Your task to perform on an android device: turn off picture-in-picture Image 0: 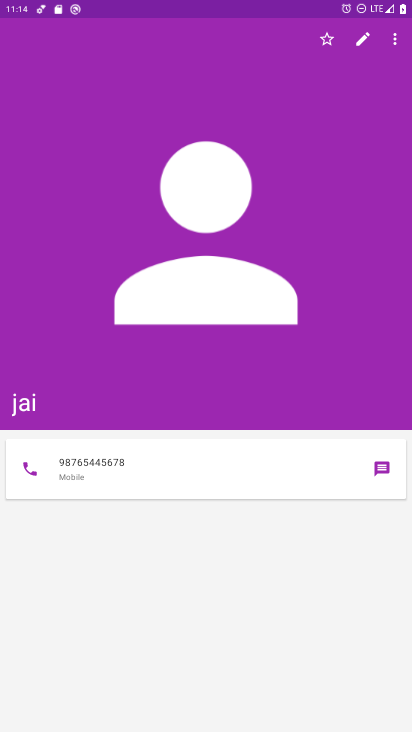
Step 0: press home button
Your task to perform on an android device: turn off picture-in-picture Image 1: 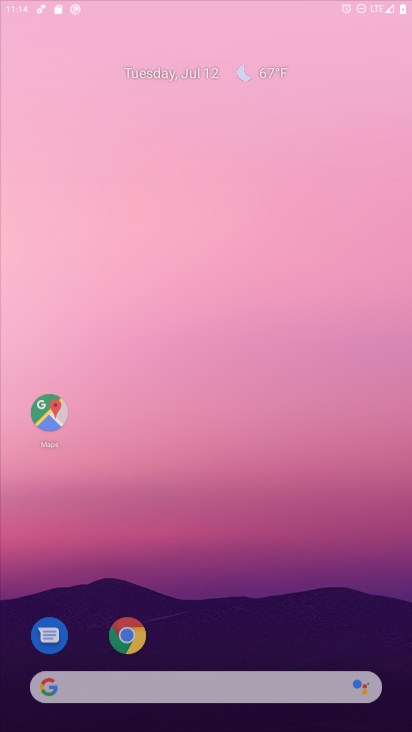
Step 1: drag from (226, 520) to (290, 91)
Your task to perform on an android device: turn off picture-in-picture Image 2: 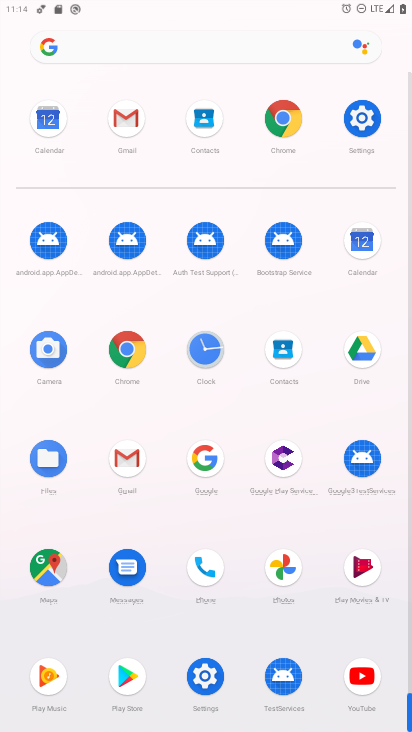
Step 2: click (356, 113)
Your task to perform on an android device: turn off picture-in-picture Image 3: 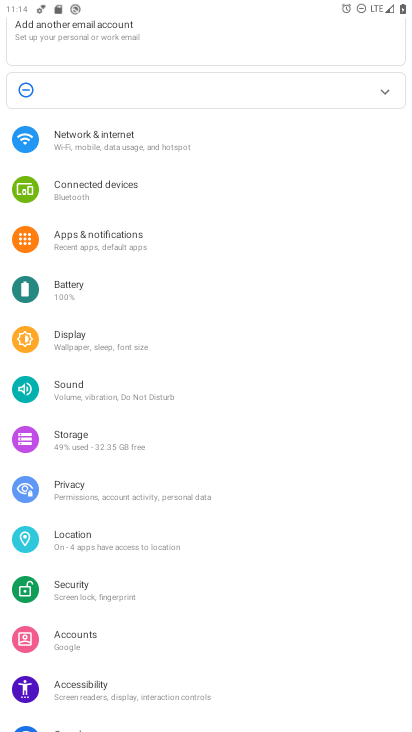
Step 3: drag from (150, 624) to (290, 97)
Your task to perform on an android device: turn off picture-in-picture Image 4: 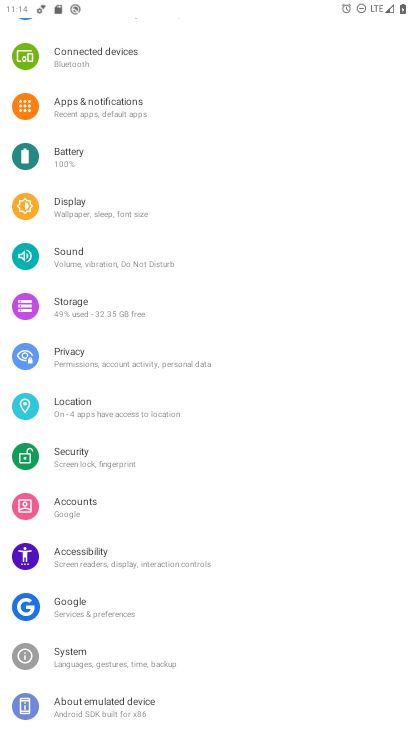
Step 4: click (102, 107)
Your task to perform on an android device: turn off picture-in-picture Image 5: 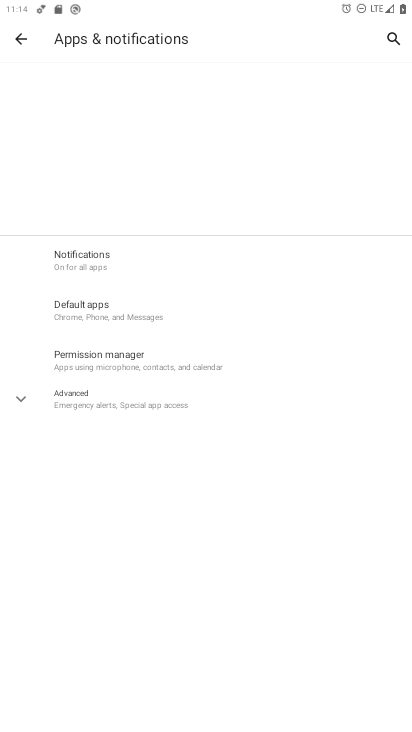
Step 5: drag from (269, 420) to (249, 144)
Your task to perform on an android device: turn off picture-in-picture Image 6: 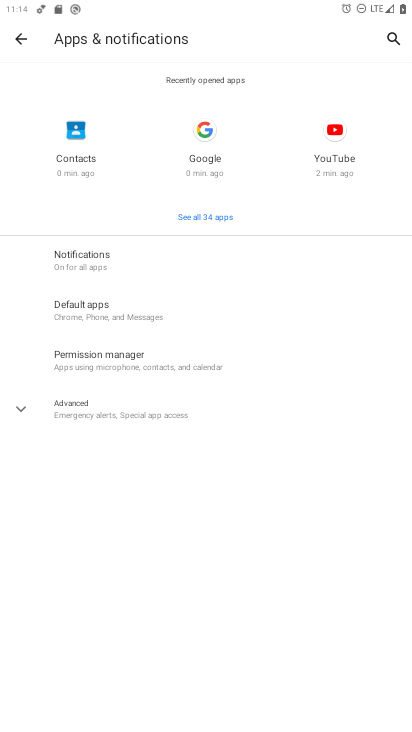
Step 6: click (89, 409)
Your task to perform on an android device: turn off picture-in-picture Image 7: 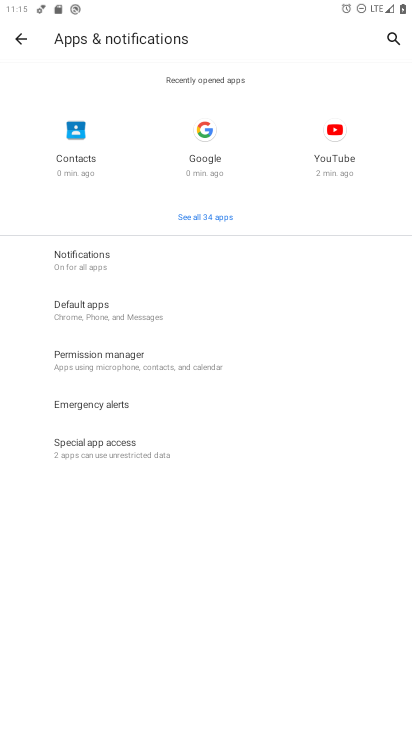
Step 7: click (146, 453)
Your task to perform on an android device: turn off picture-in-picture Image 8: 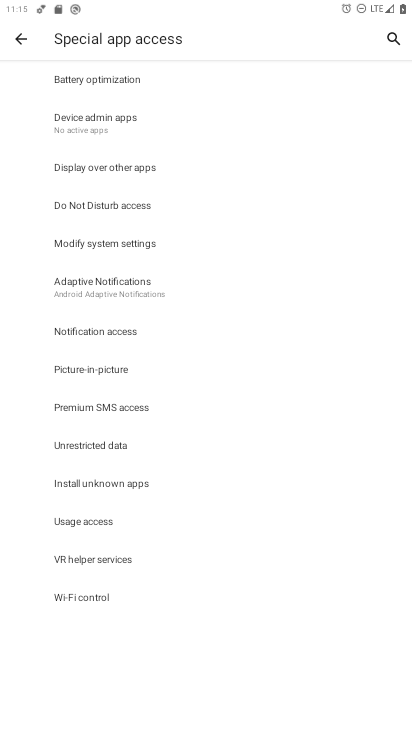
Step 8: click (114, 369)
Your task to perform on an android device: turn off picture-in-picture Image 9: 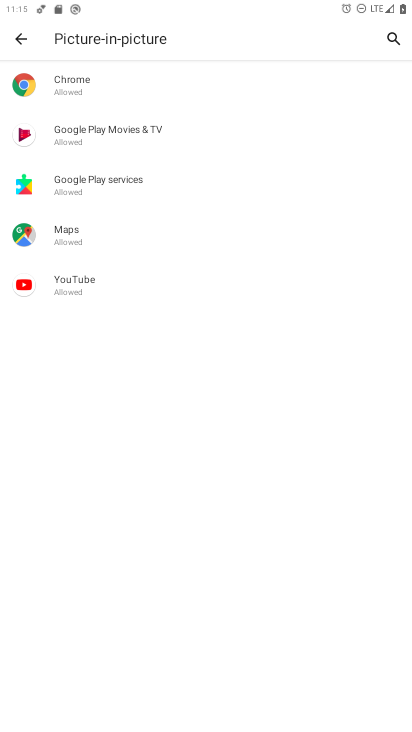
Step 9: click (182, 88)
Your task to perform on an android device: turn off picture-in-picture Image 10: 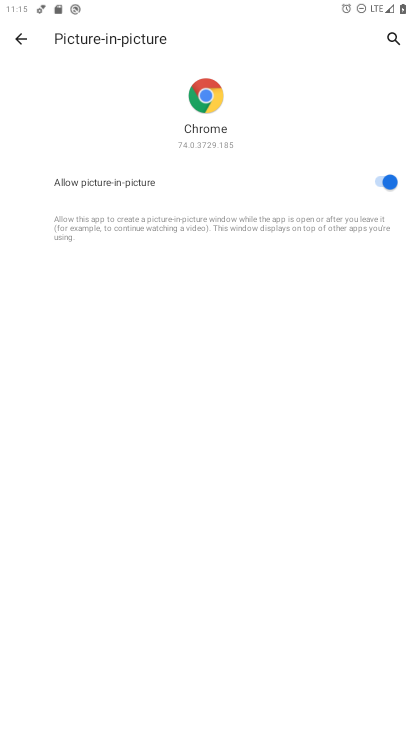
Step 10: click (375, 181)
Your task to perform on an android device: turn off picture-in-picture Image 11: 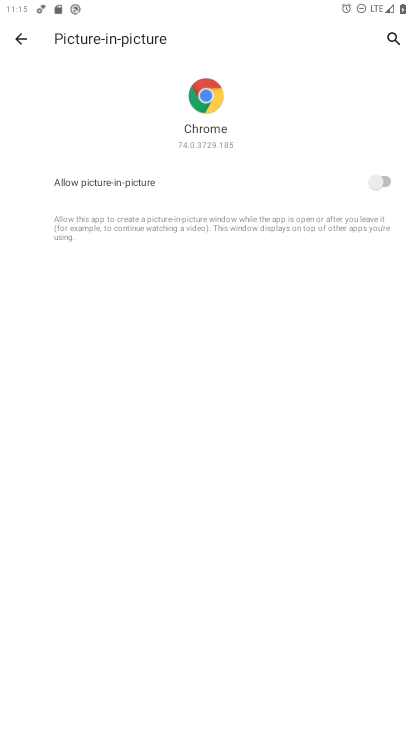
Step 11: task complete